Your task to perform on an android device: visit the assistant section in the google photos Image 0: 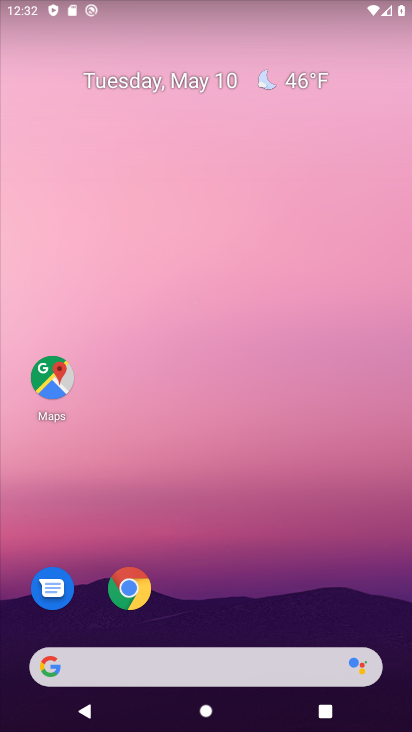
Step 0: drag from (208, 638) to (172, 44)
Your task to perform on an android device: visit the assistant section in the google photos Image 1: 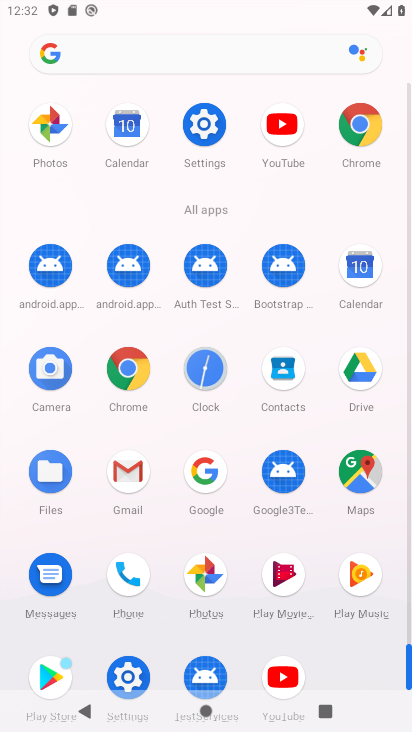
Step 1: click (202, 573)
Your task to perform on an android device: visit the assistant section in the google photos Image 2: 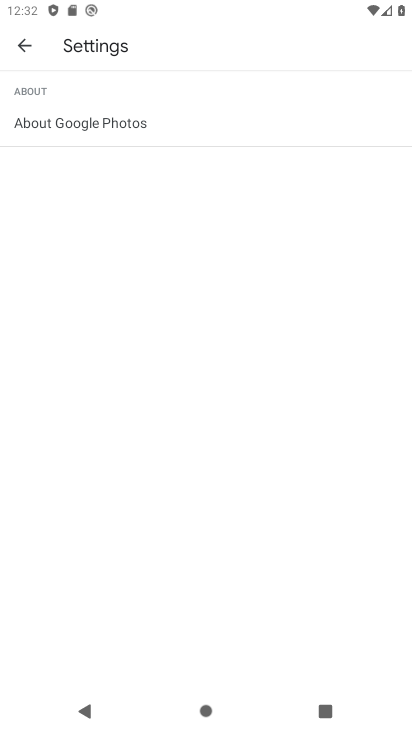
Step 2: click (29, 52)
Your task to perform on an android device: visit the assistant section in the google photos Image 3: 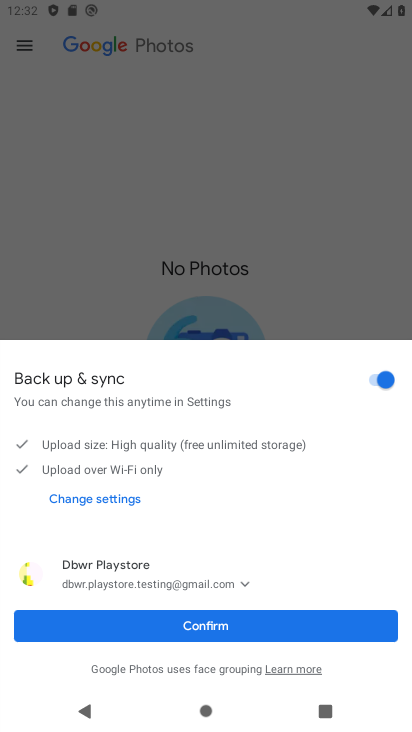
Step 3: click (206, 630)
Your task to perform on an android device: visit the assistant section in the google photos Image 4: 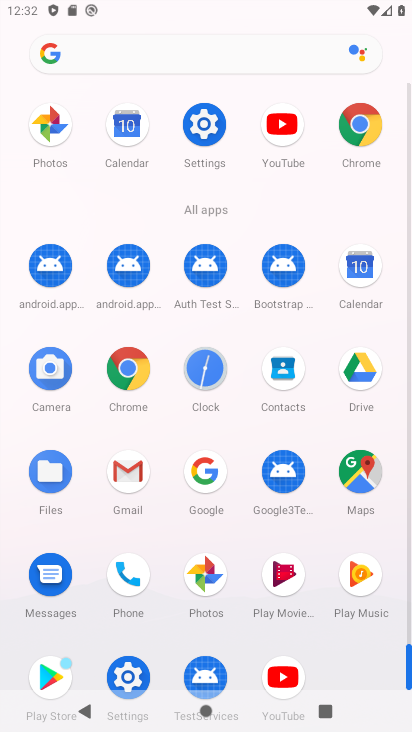
Step 4: click (188, 560)
Your task to perform on an android device: visit the assistant section in the google photos Image 5: 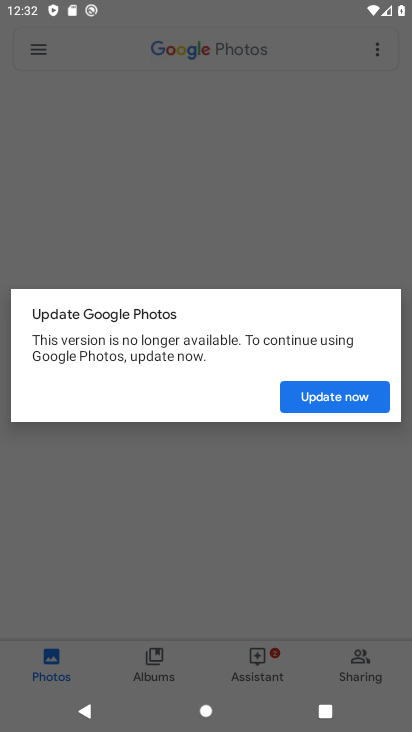
Step 5: click (241, 649)
Your task to perform on an android device: visit the assistant section in the google photos Image 6: 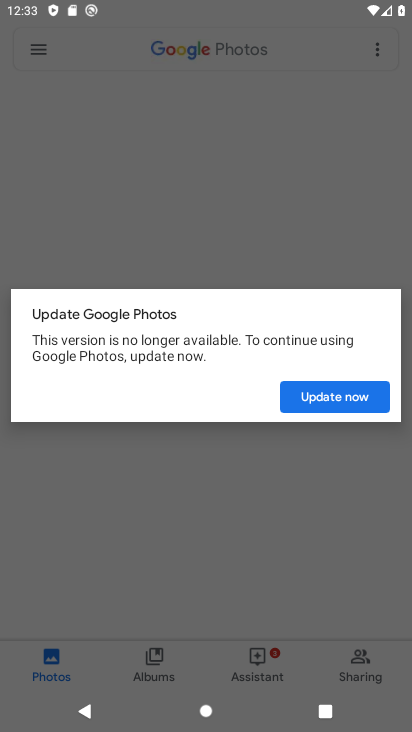
Step 6: click (373, 401)
Your task to perform on an android device: visit the assistant section in the google photos Image 7: 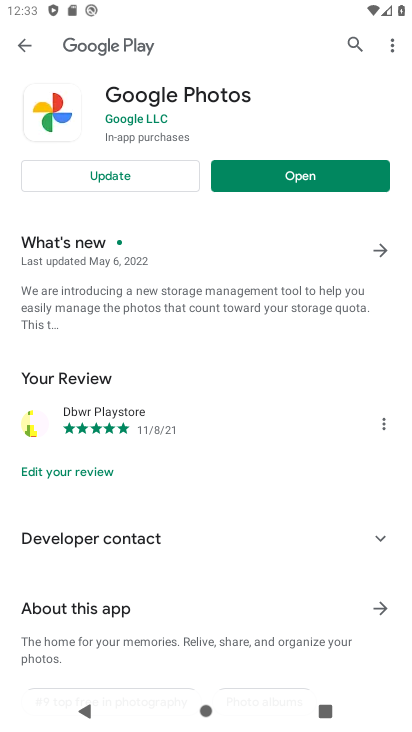
Step 7: click (256, 187)
Your task to perform on an android device: visit the assistant section in the google photos Image 8: 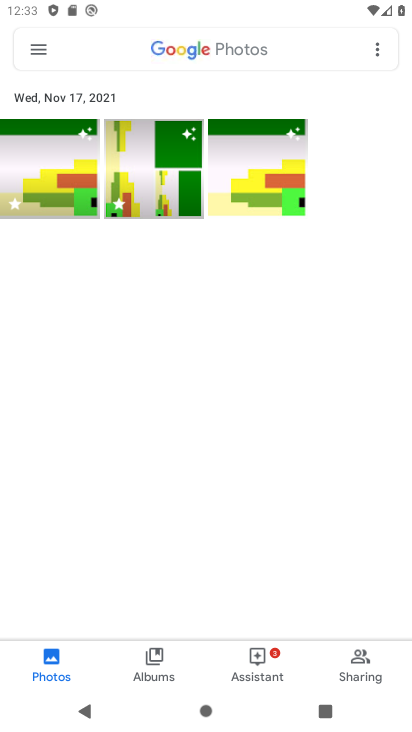
Step 8: click (240, 661)
Your task to perform on an android device: visit the assistant section in the google photos Image 9: 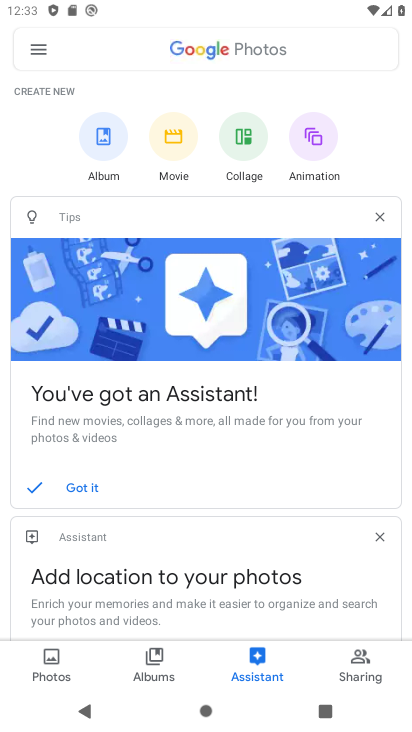
Step 9: task complete